Your task to perform on an android device: Go to Wikipedia Image 0: 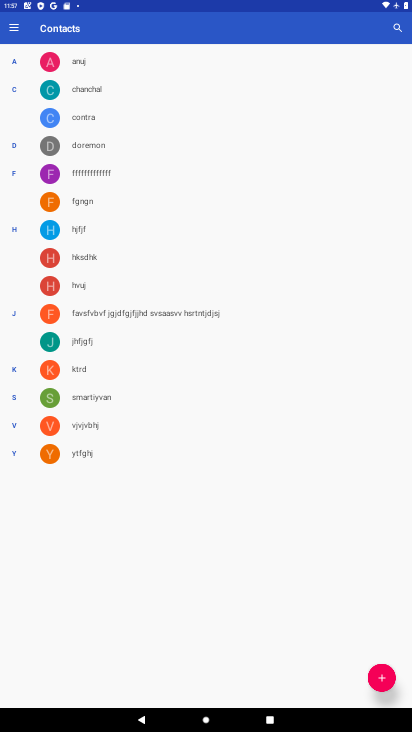
Step 0: press home button
Your task to perform on an android device: Go to Wikipedia Image 1: 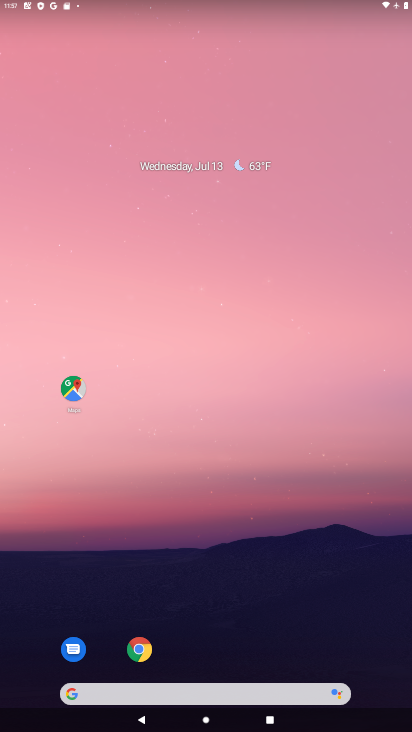
Step 1: drag from (231, 631) to (234, 194)
Your task to perform on an android device: Go to Wikipedia Image 2: 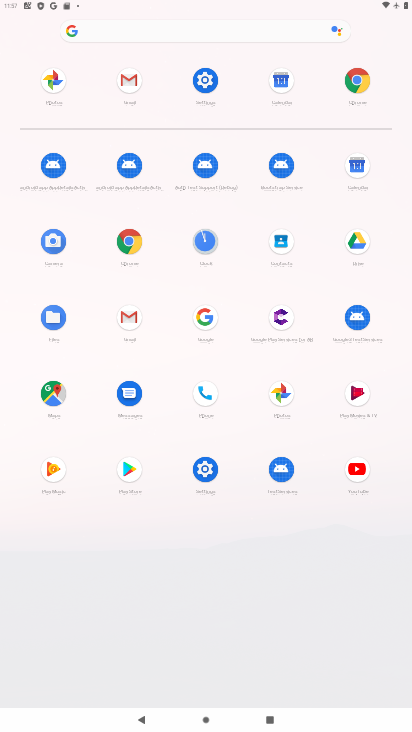
Step 2: click (357, 72)
Your task to perform on an android device: Go to Wikipedia Image 3: 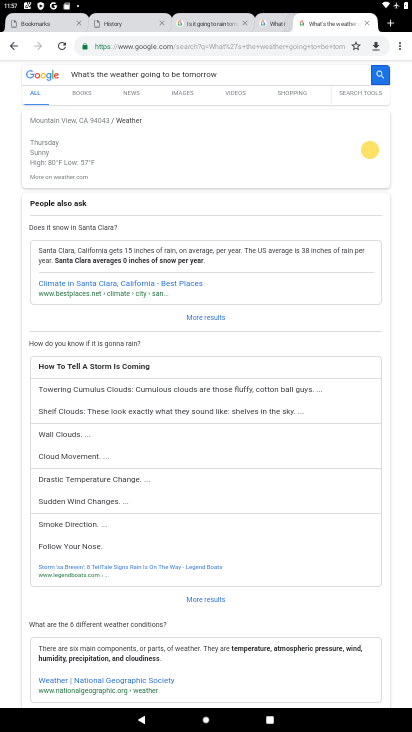
Step 3: click (407, 37)
Your task to perform on an android device: Go to Wikipedia Image 4: 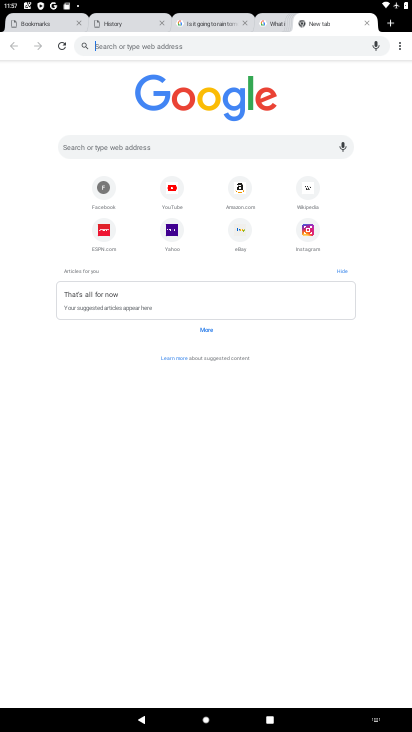
Step 4: click (311, 190)
Your task to perform on an android device: Go to Wikipedia Image 5: 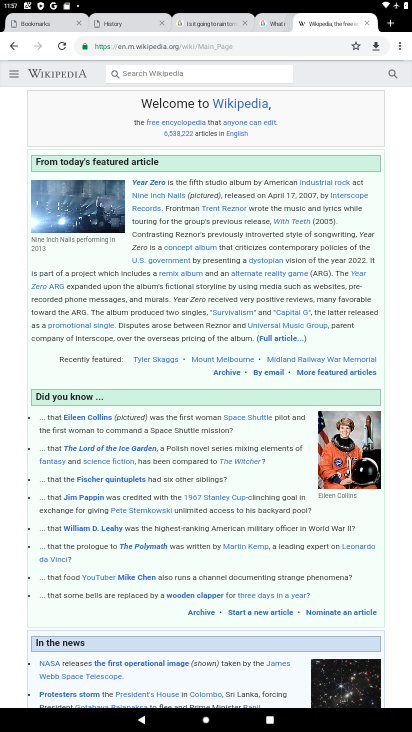
Step 5: task complete